Your task to perform on an android device: Open Google Maps and go to "Timeline" Image 0: 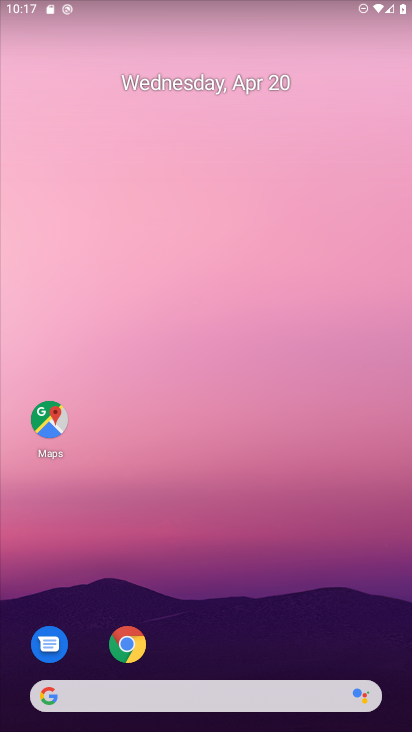
Step 0: drag from (335, 624) to (200, 122)
Your task to perform on an android device: Open Google Maps and go to "Timeline" Image 1: 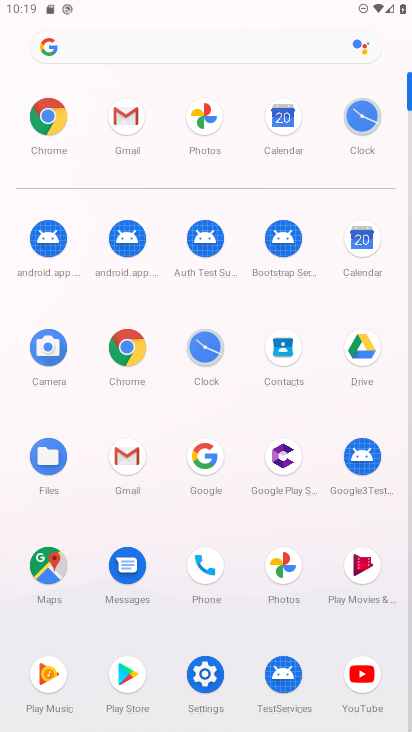
Step 1: click (39, 580)
Your task to perform on an android device: Open Google Maps and go to "Timeline" Image 2: 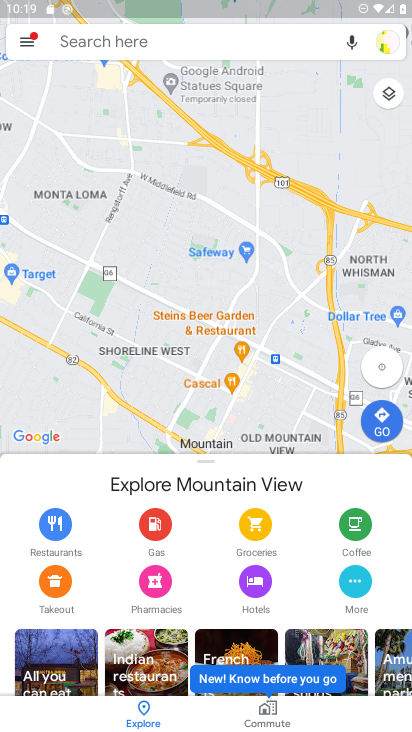
Step 2: click (22, 42)
Your task to perform on an android device: Open Google Maps and go to "Timeline" Image 3: 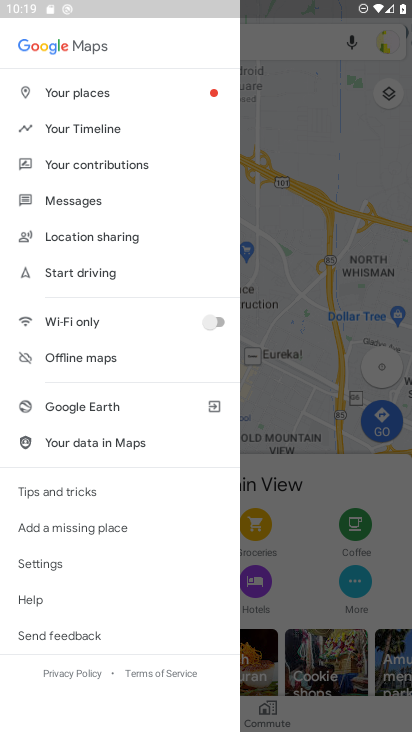
Step 3: click (90, 135)
Your task to perform on an android device: Open Google Maps and go to "Timeline" Image 4: 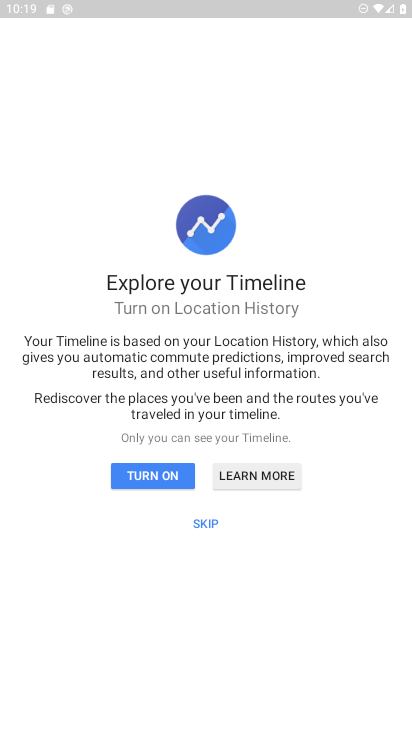
Step 4: task complete